Your task to perform on an android device: turn pop-ups off in chrome Image 0: 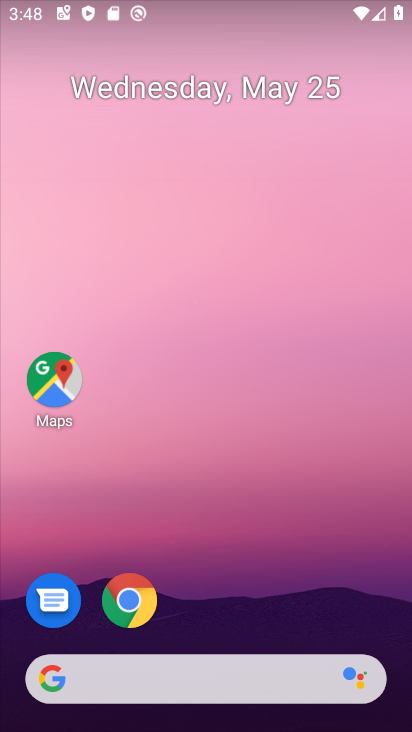
Step 0: click (124, 592)
Your task to perform on an android device: turn pop-ups off in chrome Image 1: 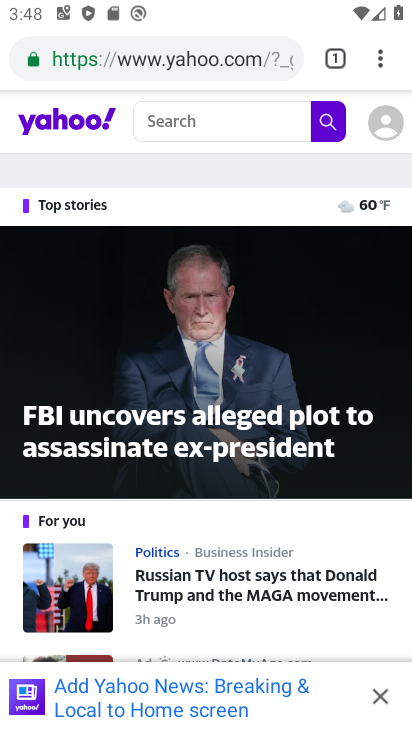
Step 1: click (379, 46)
Your task to perform on an android device: turn pop-ups off in chrome Image 2: 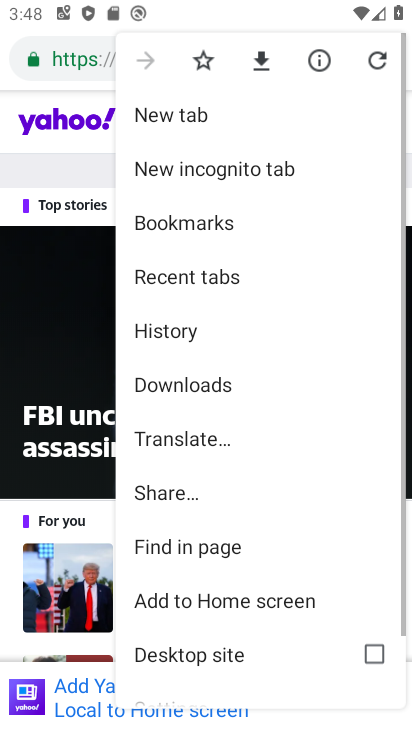
Step 2: drag from (244, 660) to (311, 122)
Your task to perform on an android device: turn pop-ups off in chrome Image 3: 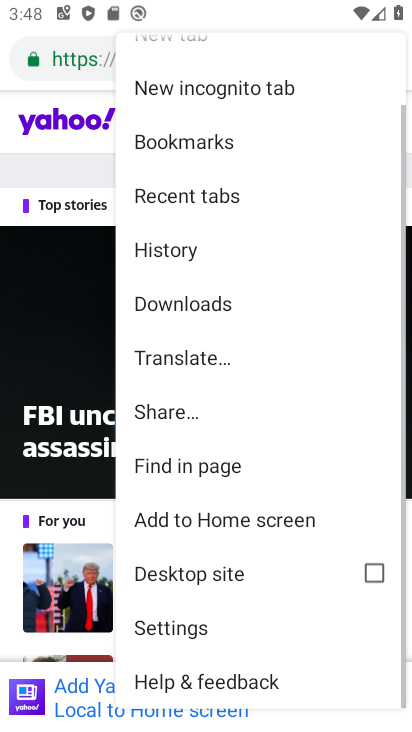
Step 3: click (200, 635)
Your task to perform on an android device: turn pop-ups off in chrome Image 4: 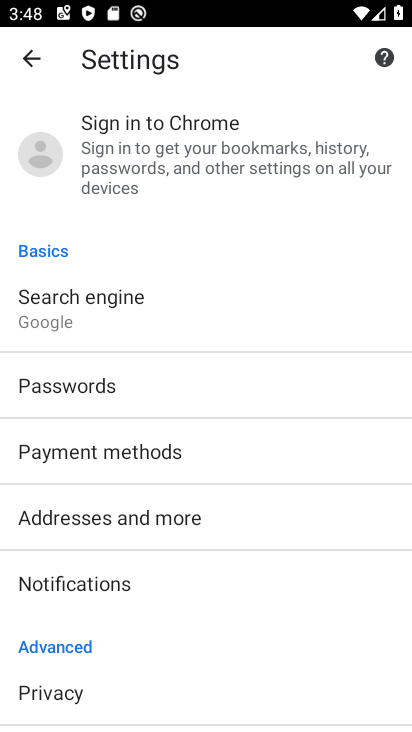
Step 4: drag from (62, 648) to (171, 171)
Your task to perform on an android device: turn pop-ups off in chrome Image 5: 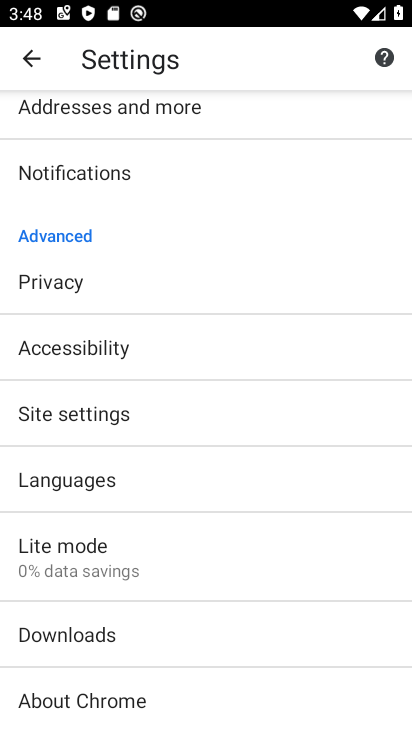
Step 5: click (107, 417)
Your task to perform on an android device: turn pop-ups off in chrome Image 6: 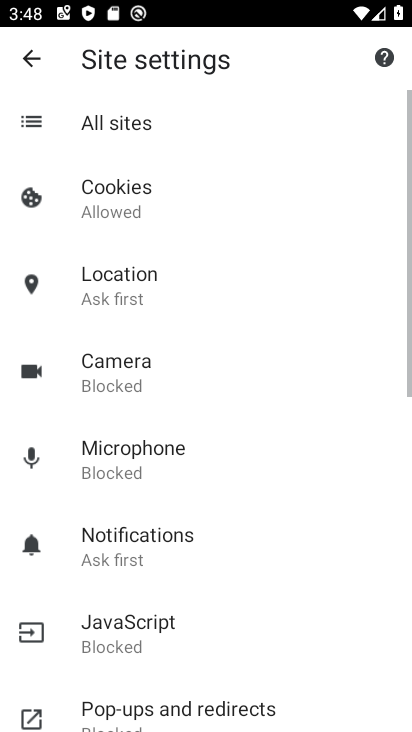
Step 6: drag from (8, 627) to (154, 210)
Your task to perform on an android device: turn pop-ups off in chrome Image 7: 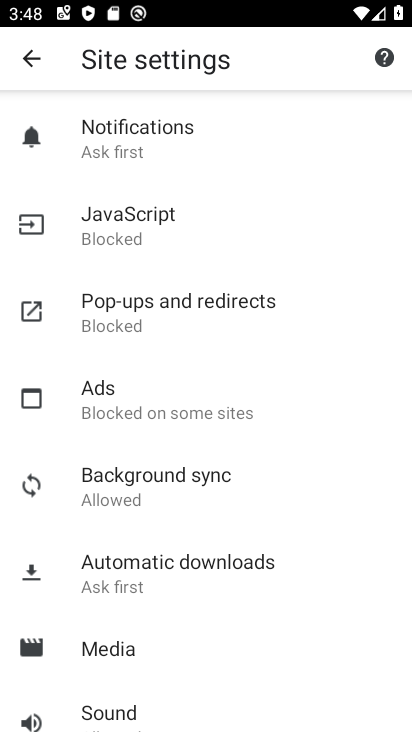
Step 7: click (158, 295)
Your task to perform on an android device: turn pop-ups off in chrome Image 8: 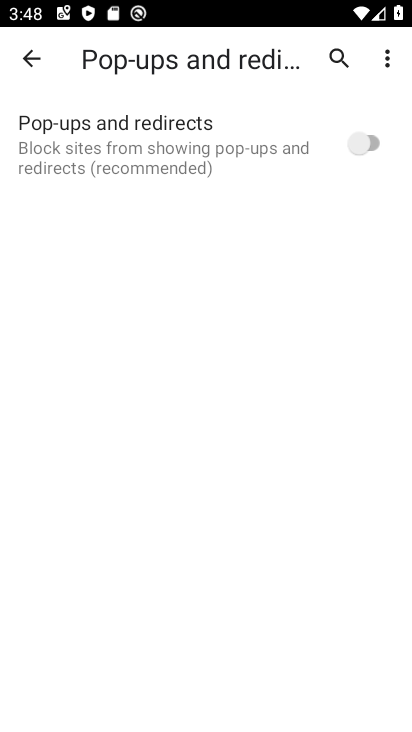
Step 8: click (360, 137)
Your task to perform on an android device: turn pop-ups off in chrome Image 9: 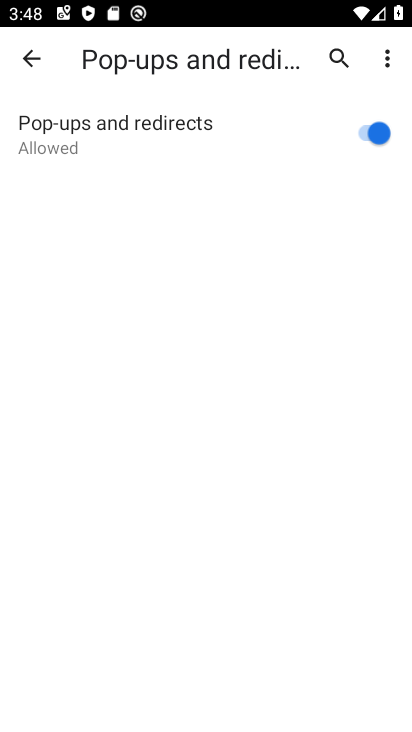
Step 9: task complete